Your task to perform on an android device: Open display settings Image 0: 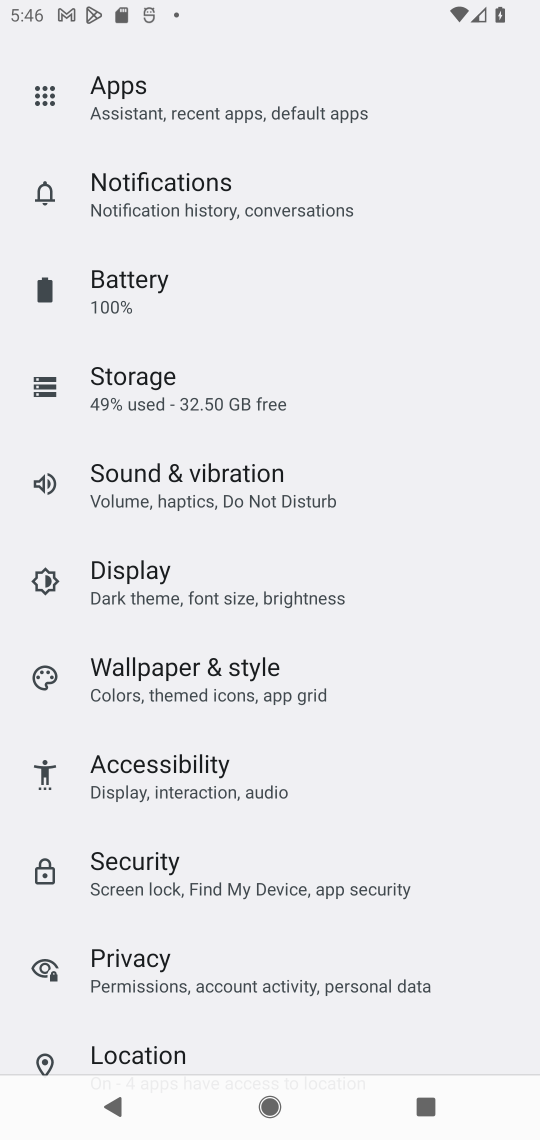
Step 0: click (254, 596)
Your task to perform on an android device: Open display settings Image 1: 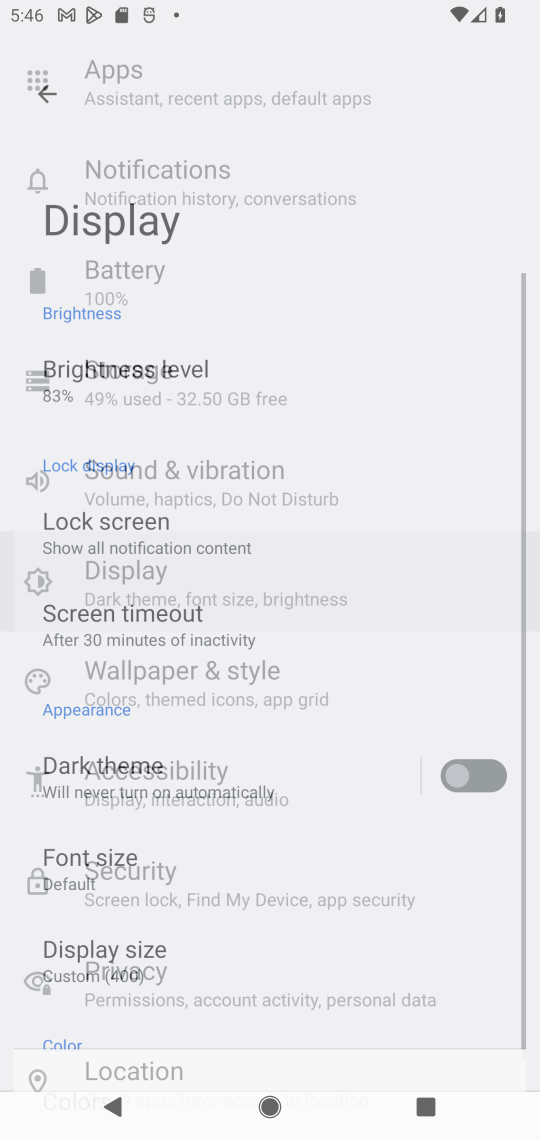
Step 1: task complete